Your task to perform on an android device: Open eBay Image 0: 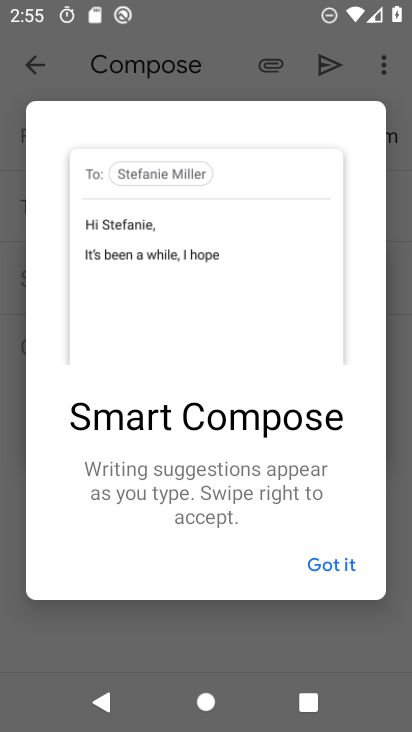
Step 0: press home button
Your task to perform on an android device: Open eBay Image 1: 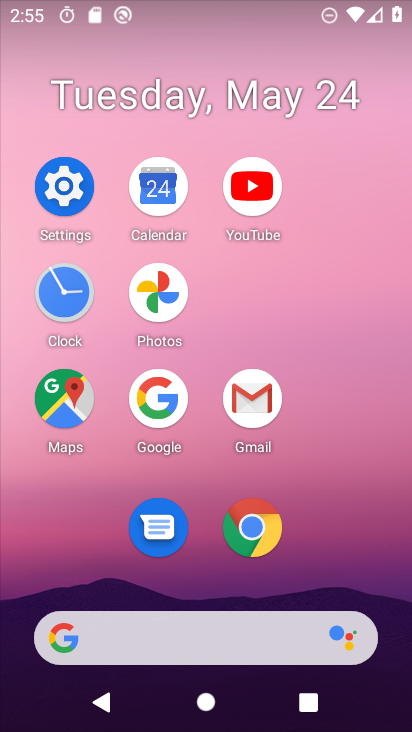
Step 1: click (271, 529)
Your task to perform on an android device: Open eBay Image 2: 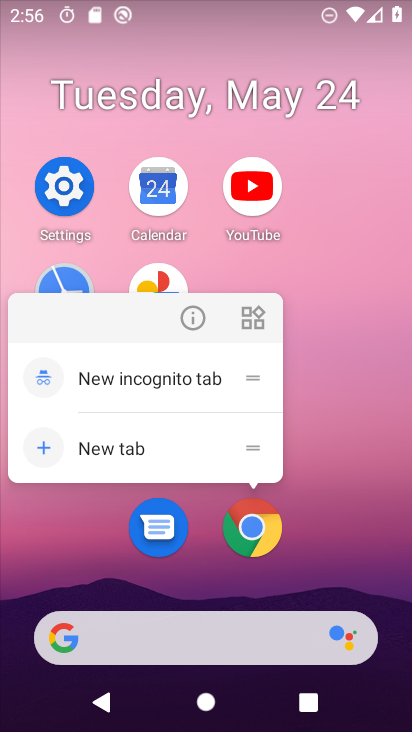
Step 2: click (258, 560)
Your task to perform on an android device: Open eBay Image 3: 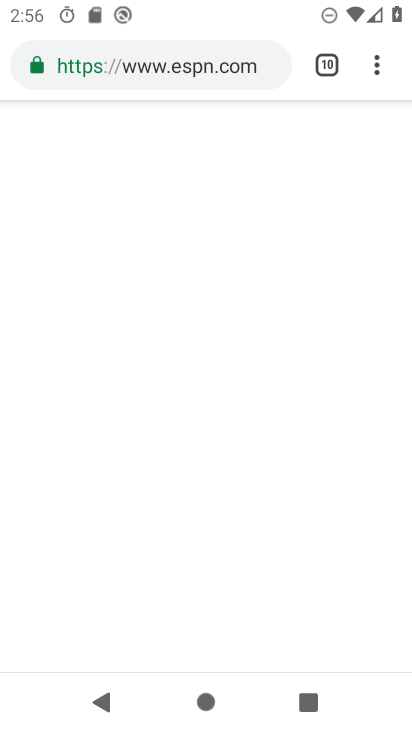
Step 3: click (266, 527)
Your task to perform on an android device: Open eBay Image 4: 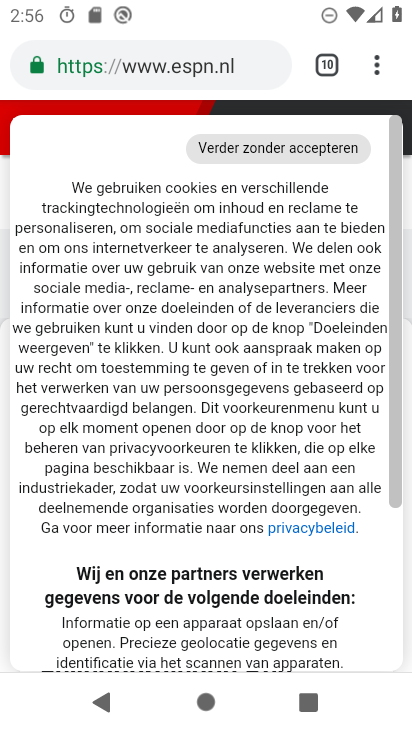
Step 4: click (338, 60)
Your task to perform on an android device: Open eBay Image 5: 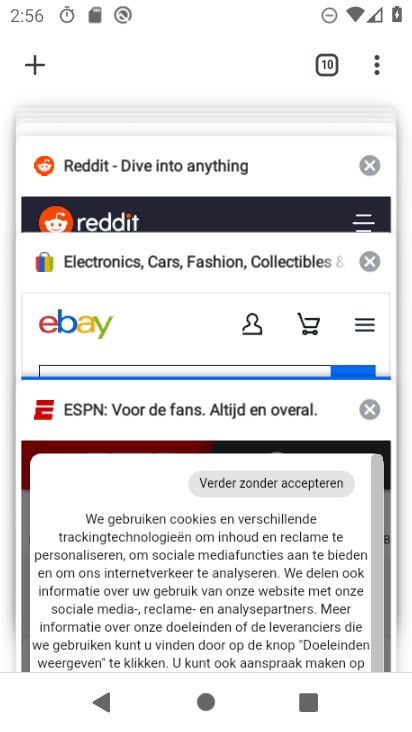
Step 5: click (25, 80)
Your task to perform on an android device: Open eBay Image 6: 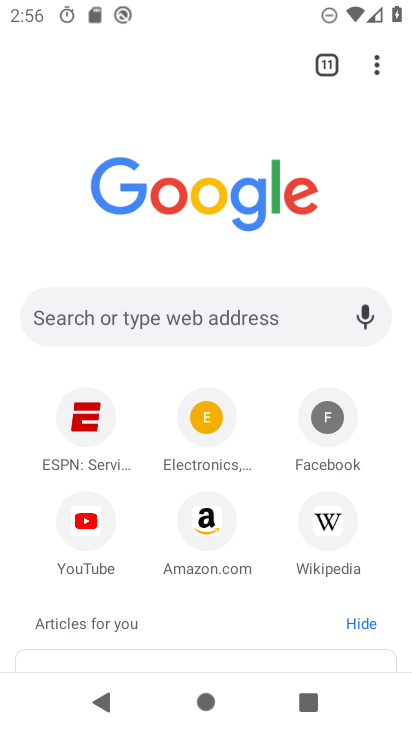
Step 6: click (222, 422)
Your task to perform on an android device: Open eBay Image 7: 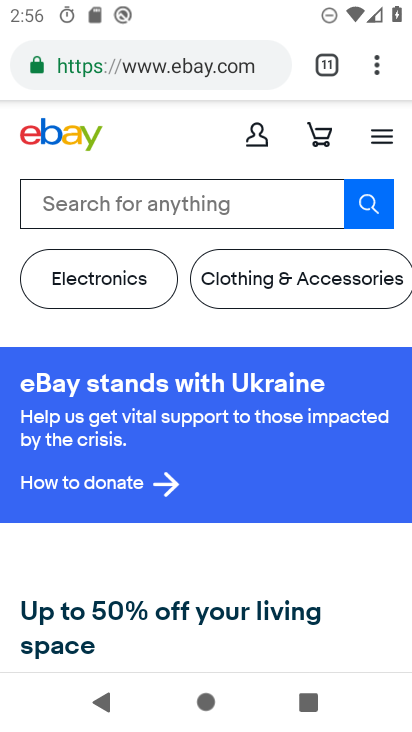
Step 7: task complete